Your task to perform on an android device: Open battery settings Image 0: 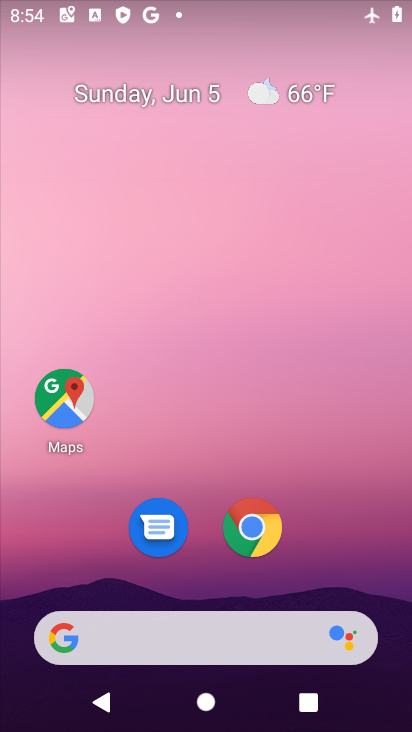
Step 0: drag from (271, 14) to (239, 394)
Your task to perform on an android device: Open battery settings Image 1: 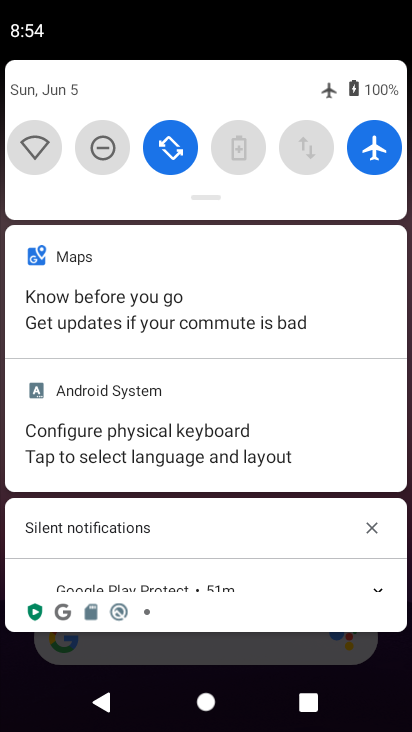
Step 1: click (243, 148)
Your task to perform on an android device: Open battery settings Image 2: 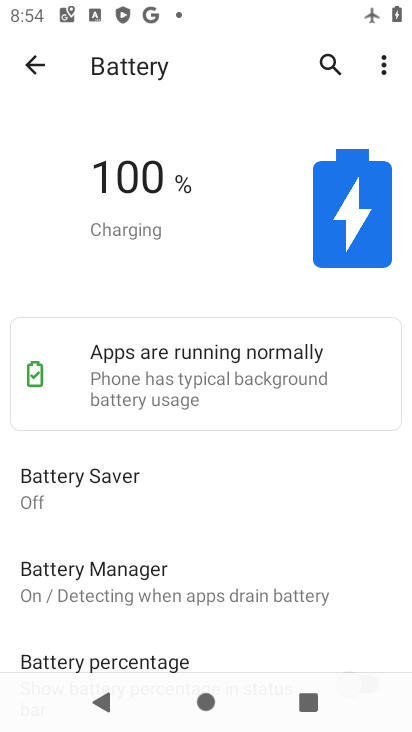
Step 2: task complete